Your task to perform on an android device: Open the Play Movies app and select the watchlist tab. Image 0: 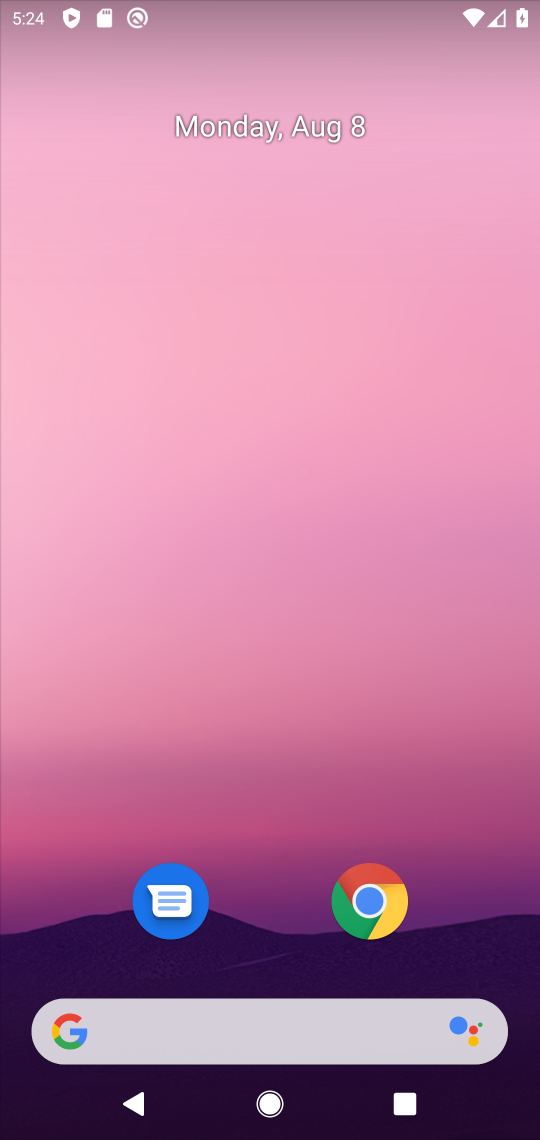
Step 0: press back button
Your task to perform on an android device: Open the Play Movies app and select the watchlist tab. Image 1: 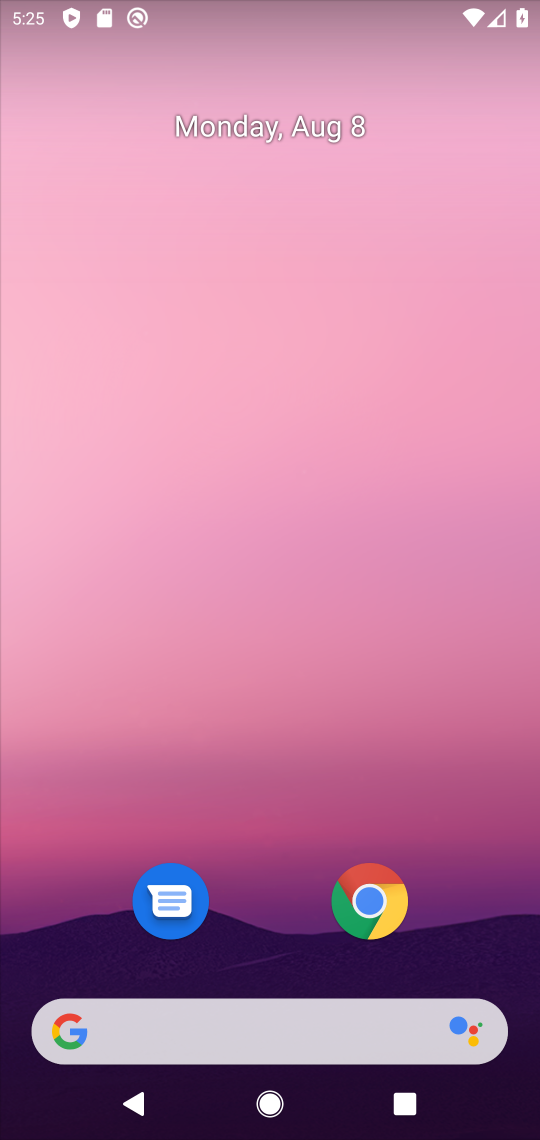
Step 1: drag from (452, 914) to (364, 98)
Your task to perform on an android device: Open the Play Movies app and select the watchlist tab. Image 2: 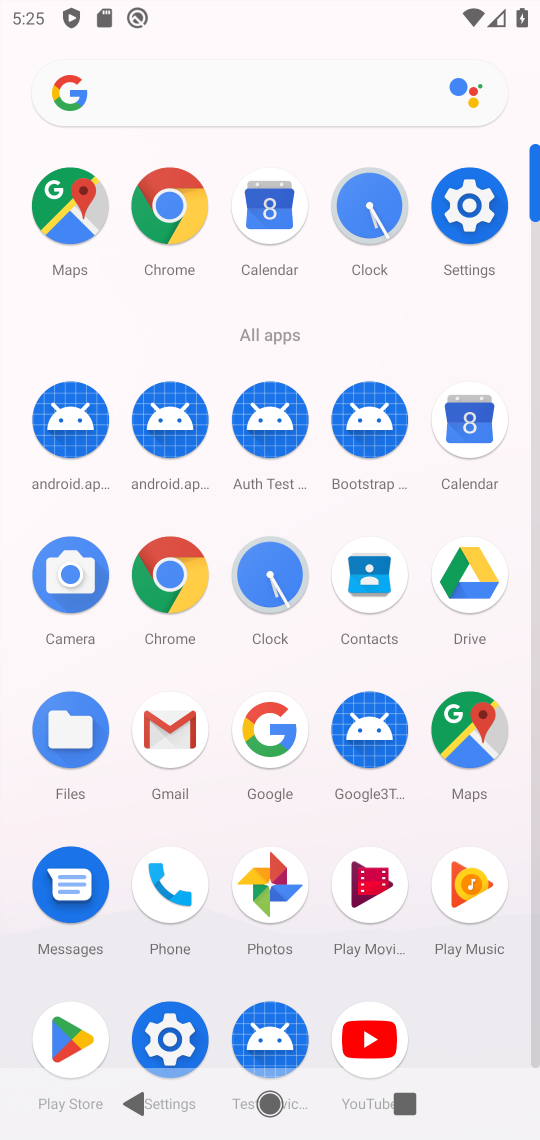
Step 2: click (377, 914)
Your task to perform on an android device: Open the Play Movies app and select the watchlist tab. Image 3: 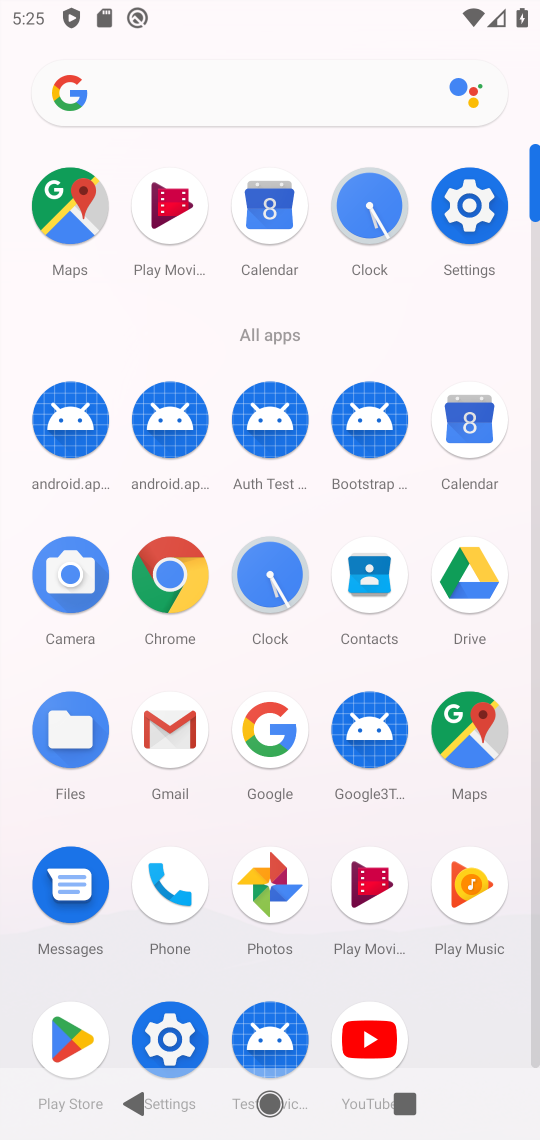
Step 3: task complete